Your task to perform on an android device: uninstall "LiveIn - Share Your Moment" Image 0: 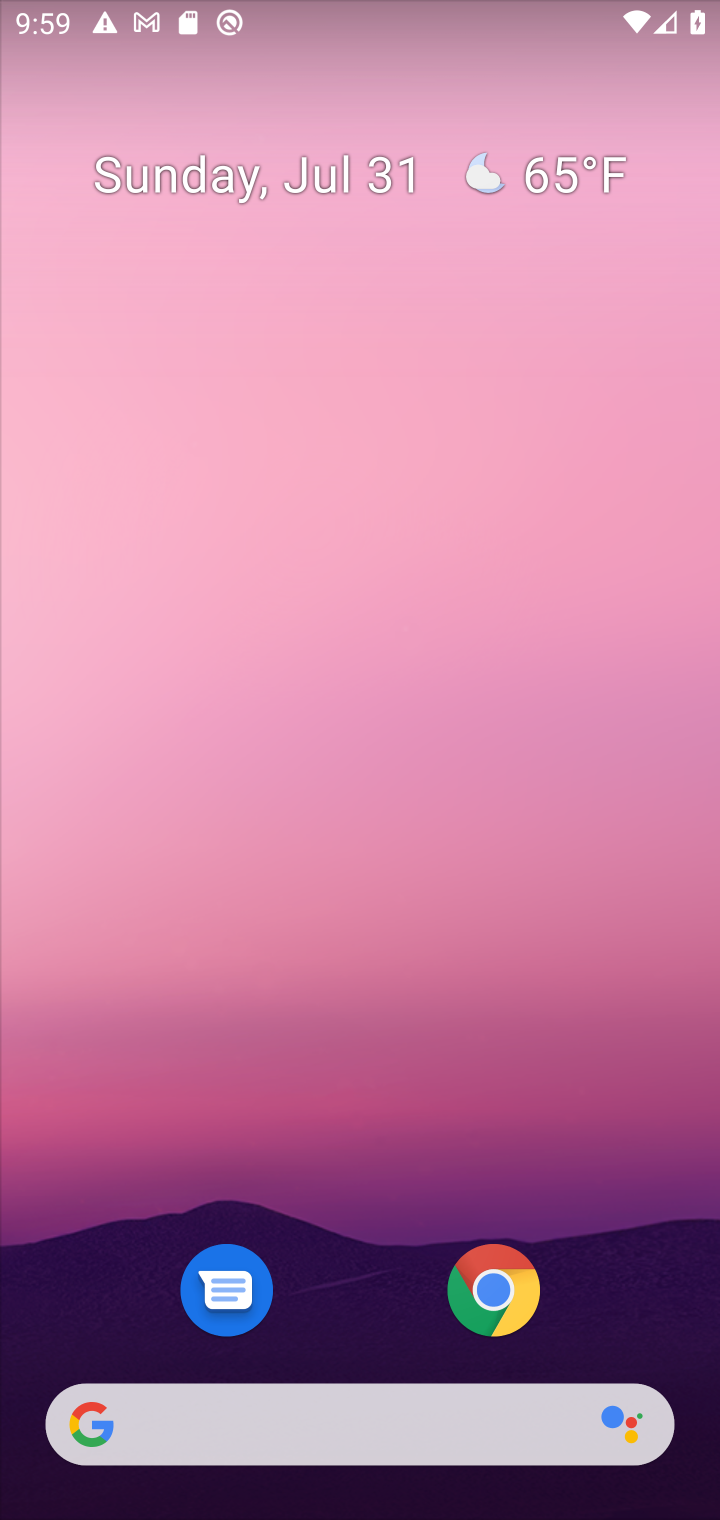
Step 0: press home button
Your task to perform on an android device: uninstall "LiveIn - Share Your Moment" Image 1: 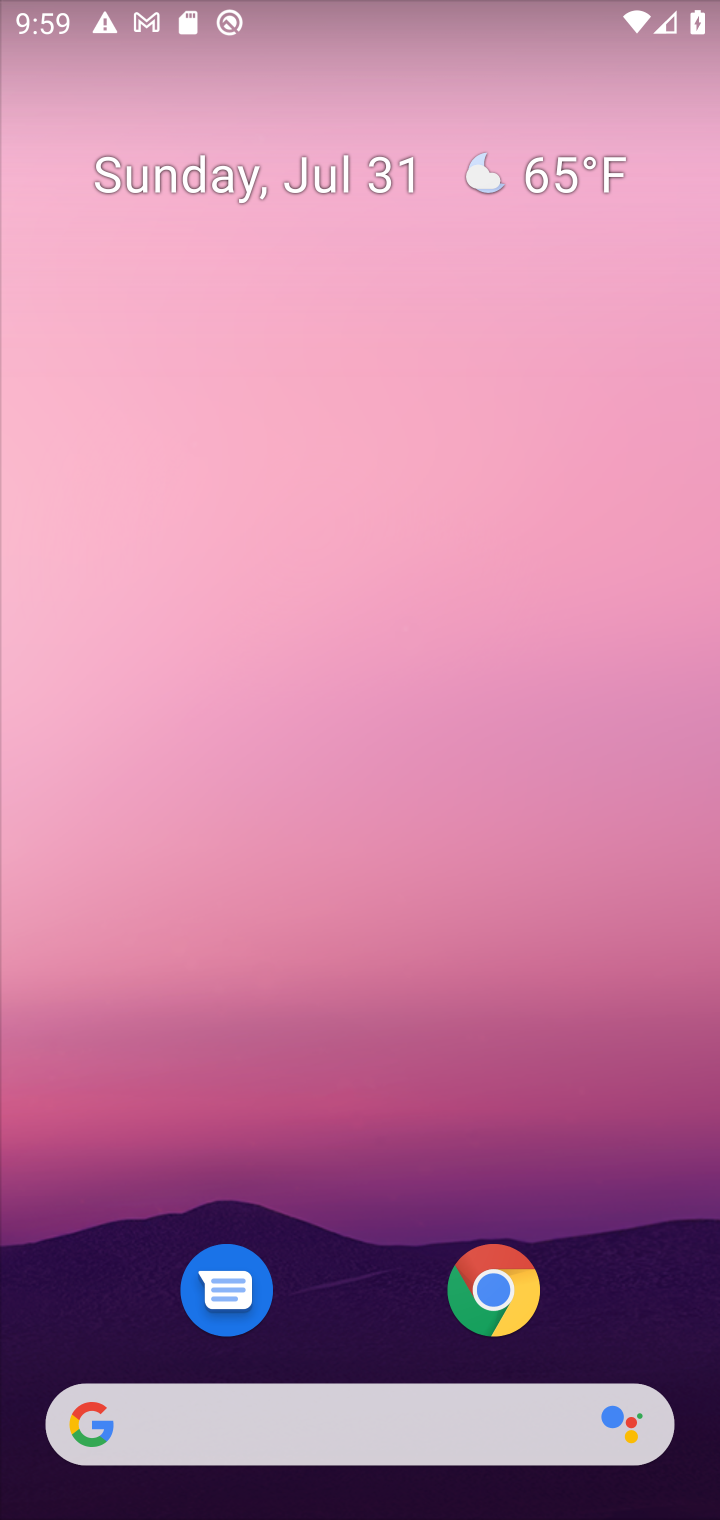
Step 1: drag from (609, 1003) to (605, 163)
Your task to perform on an android device: uninstall "LiveIn - Share Your Moment" Image 2: 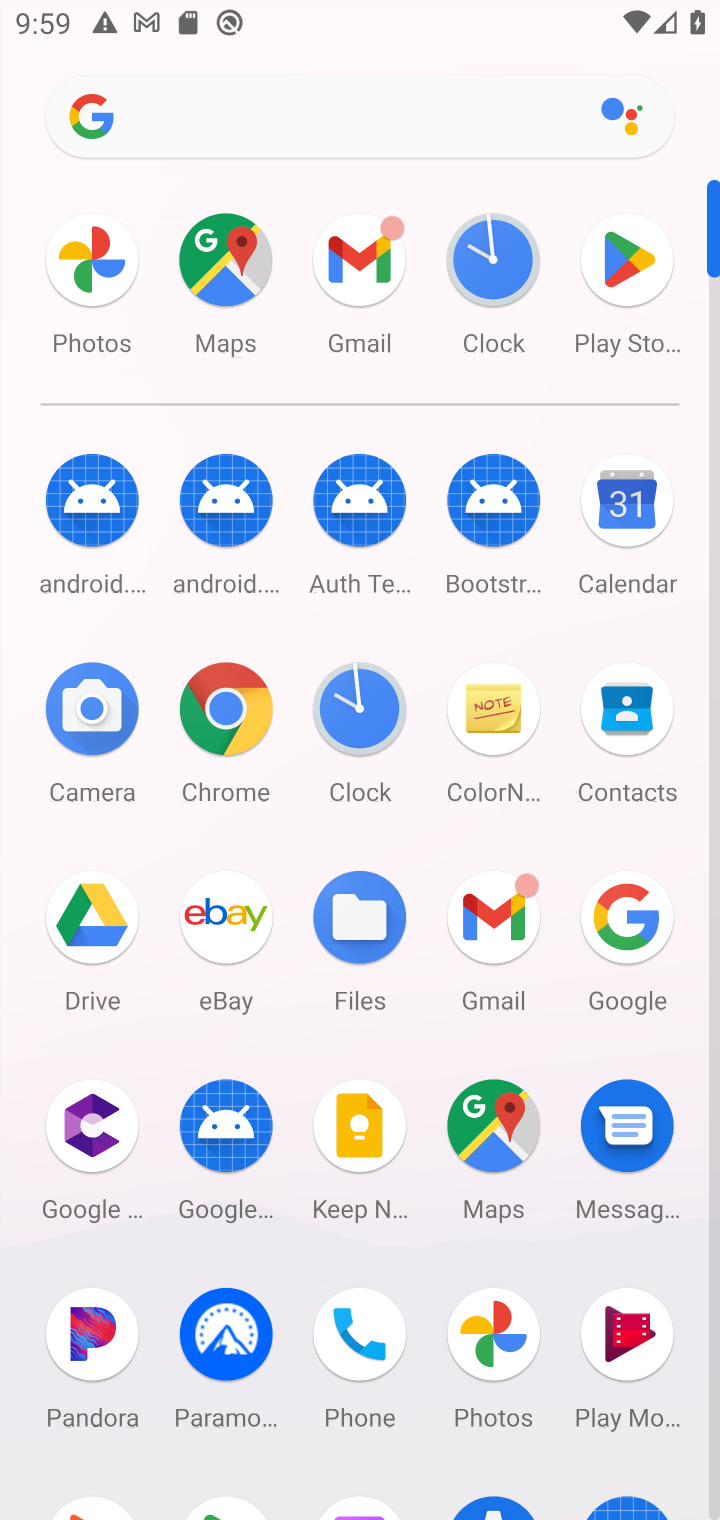
Step 2: click (634, 279)
Your task to perform on an android device: uninstall "LiveIn - Share Your Moment" Image 3: 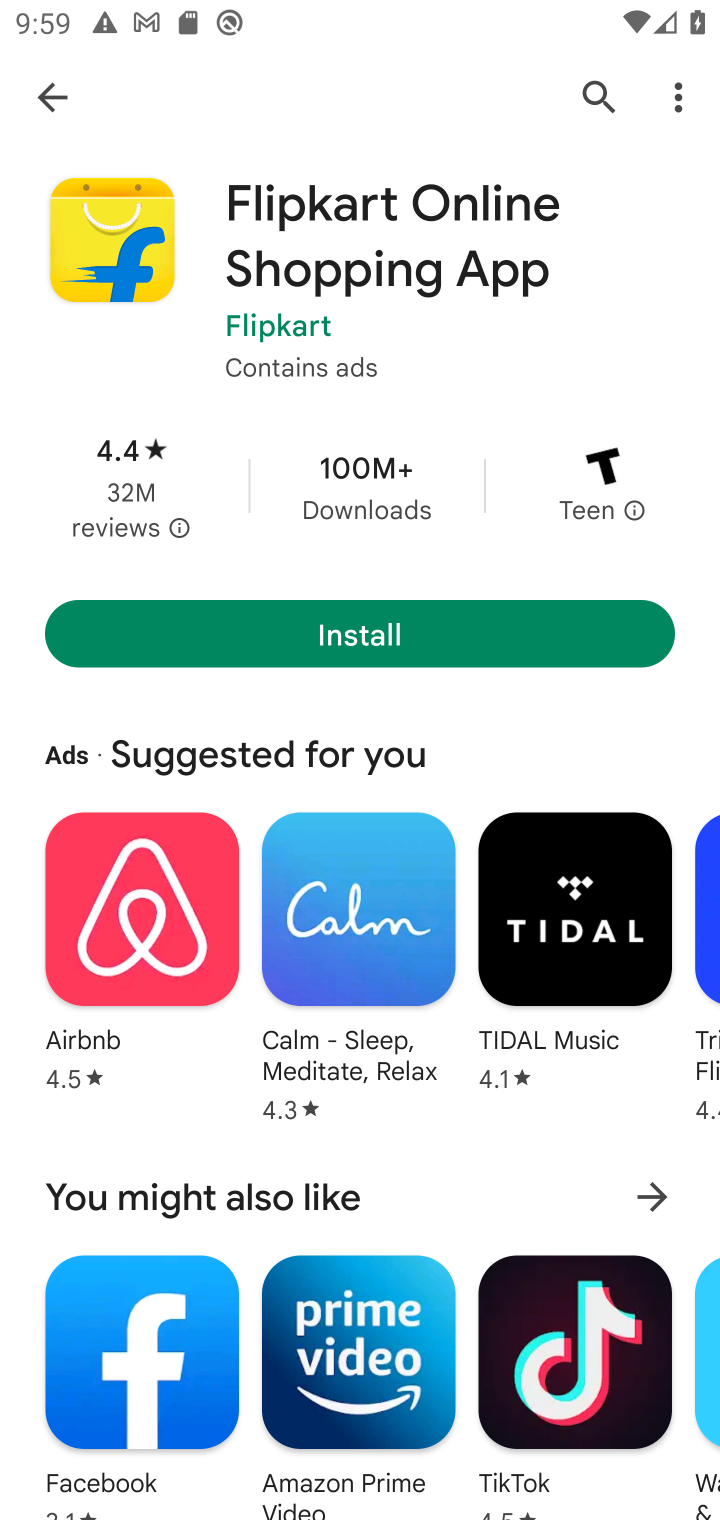
Step 3: press home button
Your task to perform on an android device: uninstall "LiveIn - Share Your Moment" Image 4: 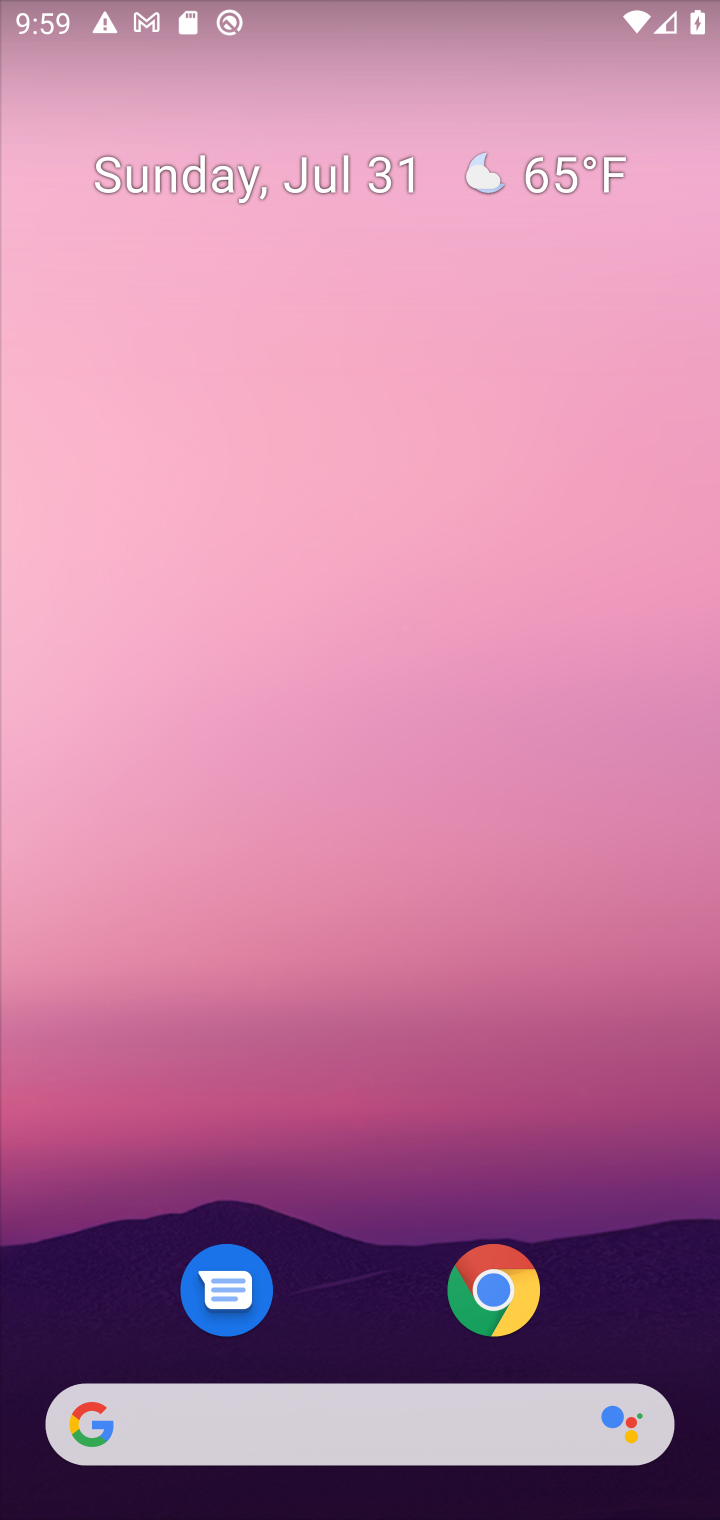
Step 4: drag from (621, 1201) to (466, 88)
Your task to perform on an android device: uninstall "LiveIn - Share Your Moment" Image 5: 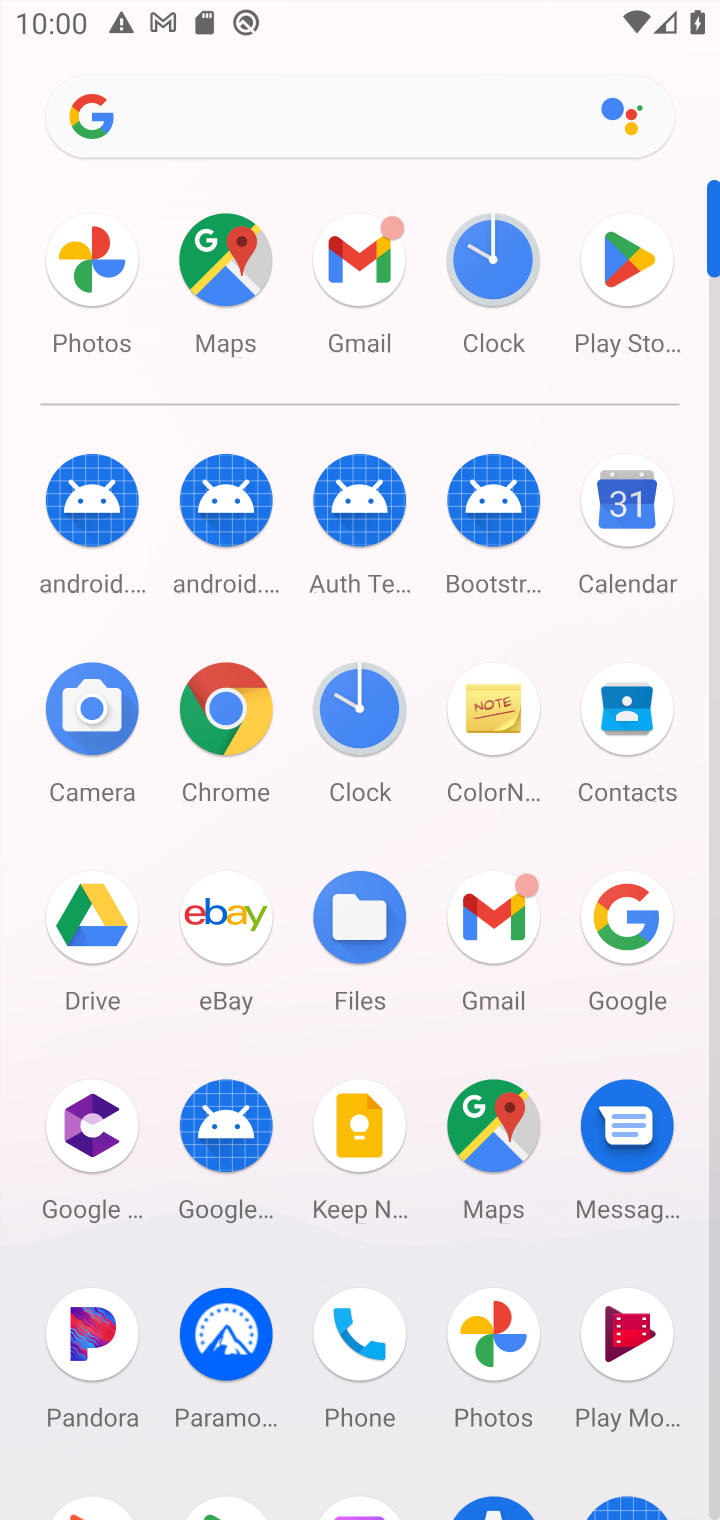
Step 5: click (598, 285)
Your task to perform on an android device: uninstall "LiveIn - Share Your Moment" Image 6: 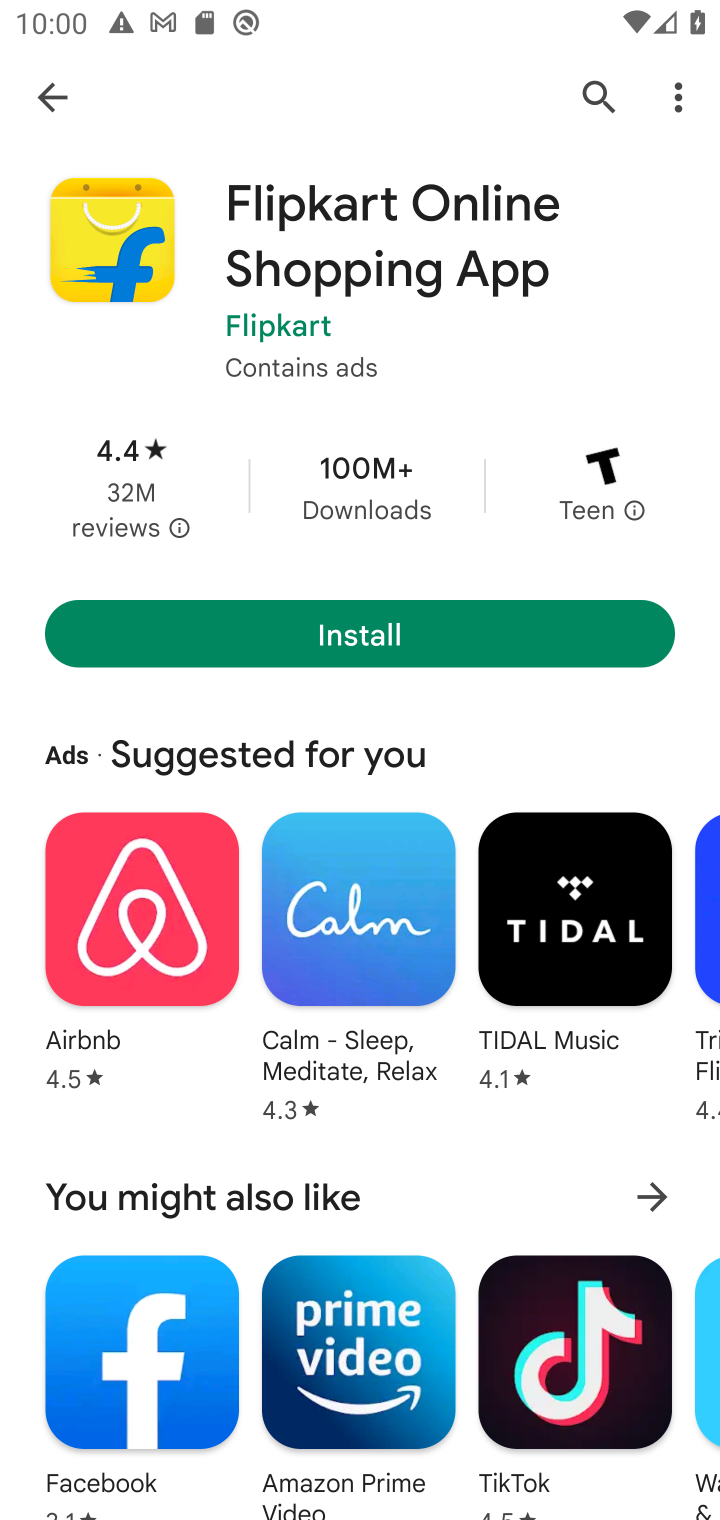
Step 6: click (61, 96)
Your task to perform on an android device: uninstall "LiveIn - Share Your Moment" Image 7: 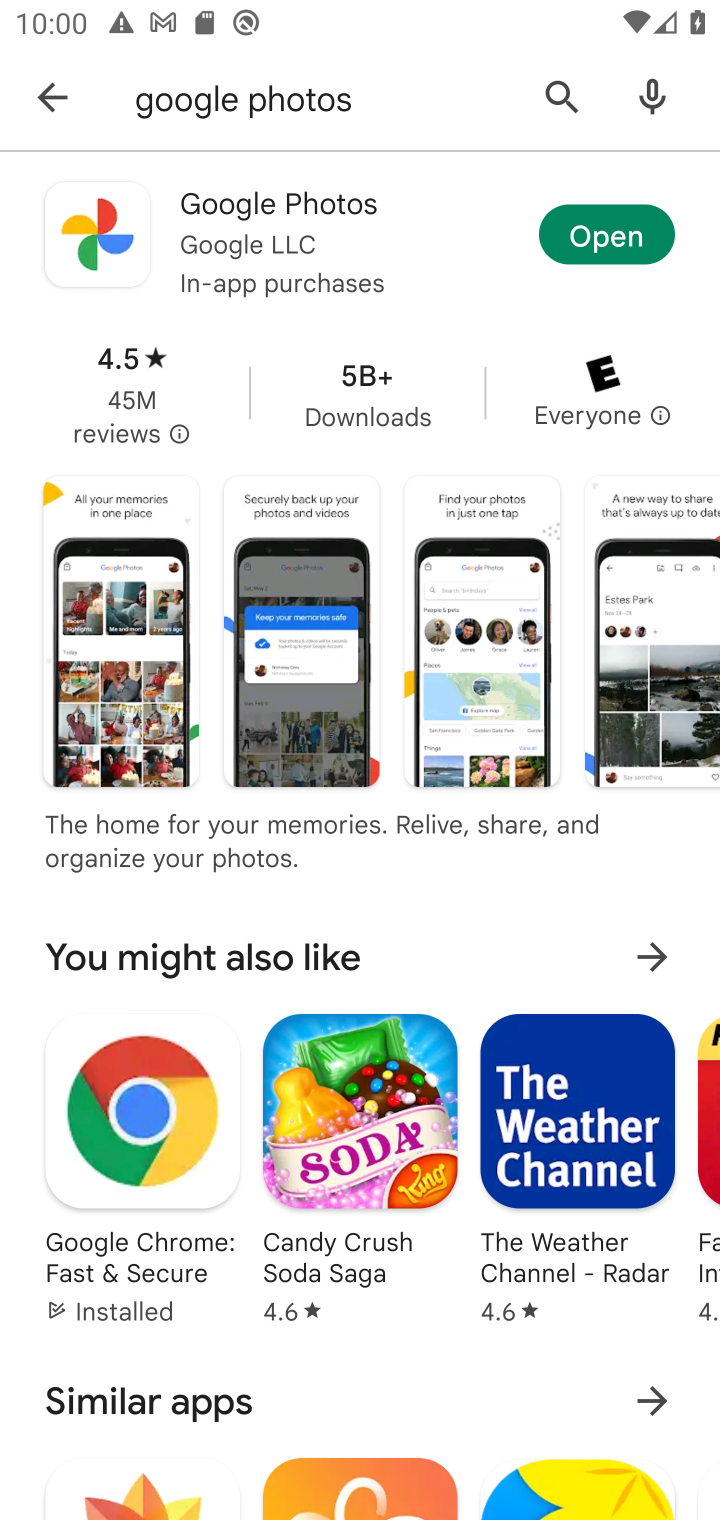
Step 7: click (559, 95)
Your task to perform on an android device: uninstall "LiveIn - Share Your Moment" Image 8: 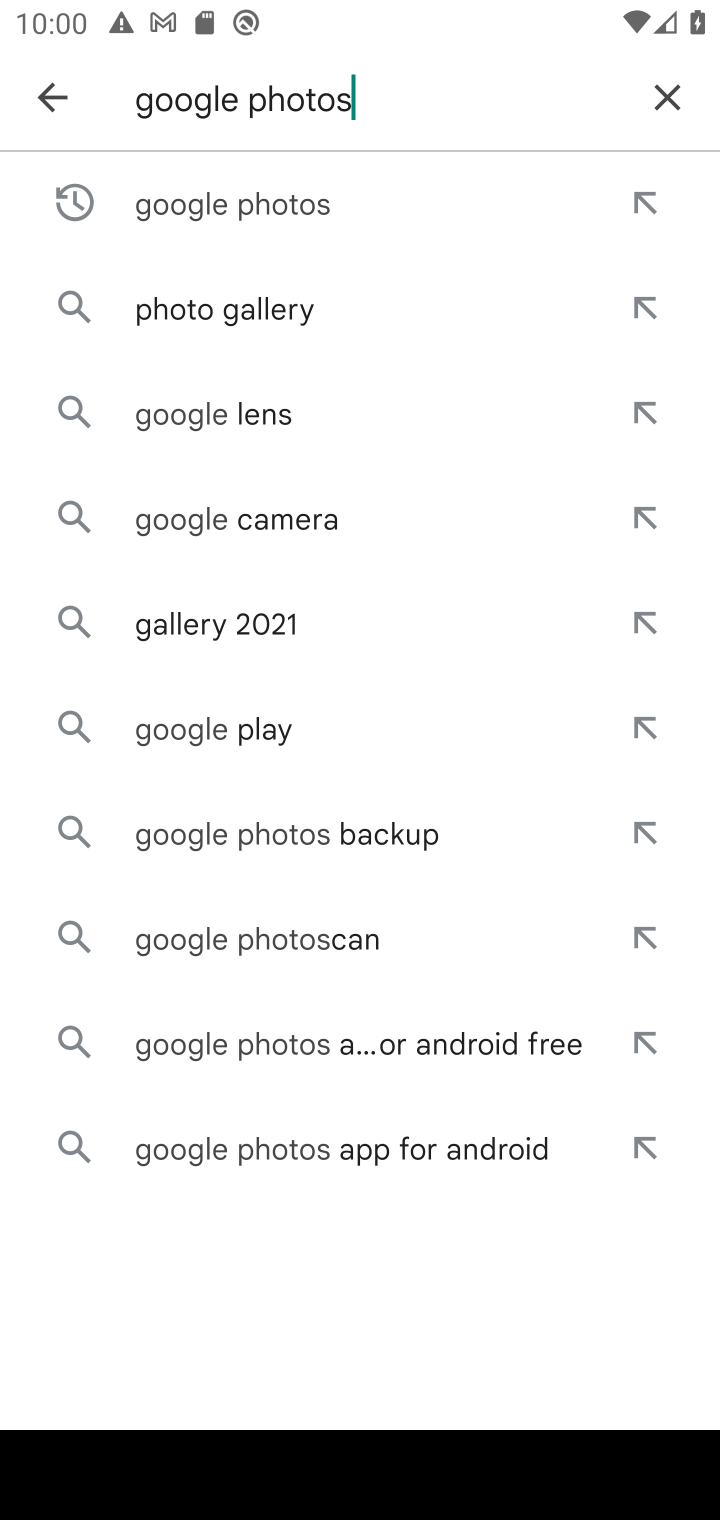
Step 8: click (670, 102)
Your task to perform on an android device: uninstall "LiveIn - Share Your Moment" Image 9: 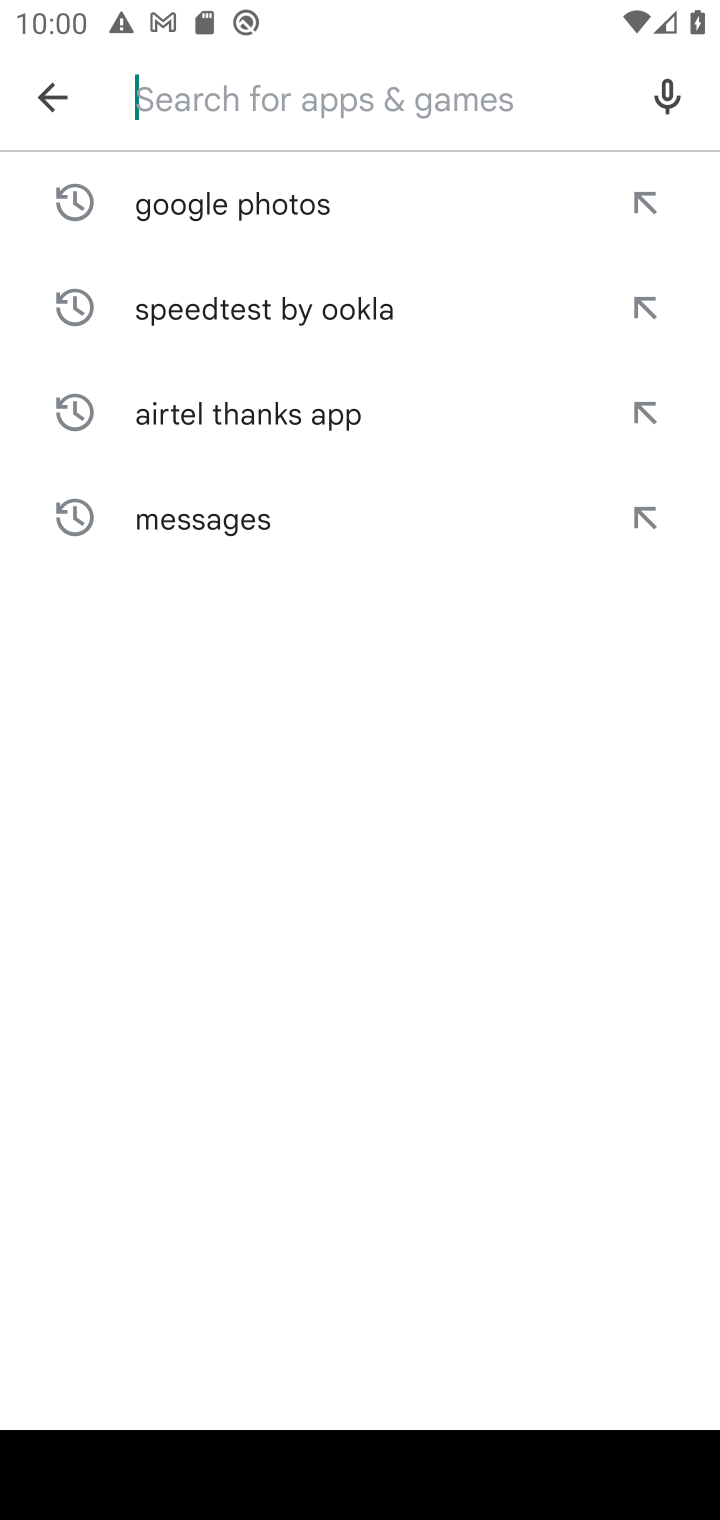
Step 9: type "LiveIn - Share Your Moment"
Your task to perform on an android device: uninstall "LiveIn - Share Your Moment" Image 10: 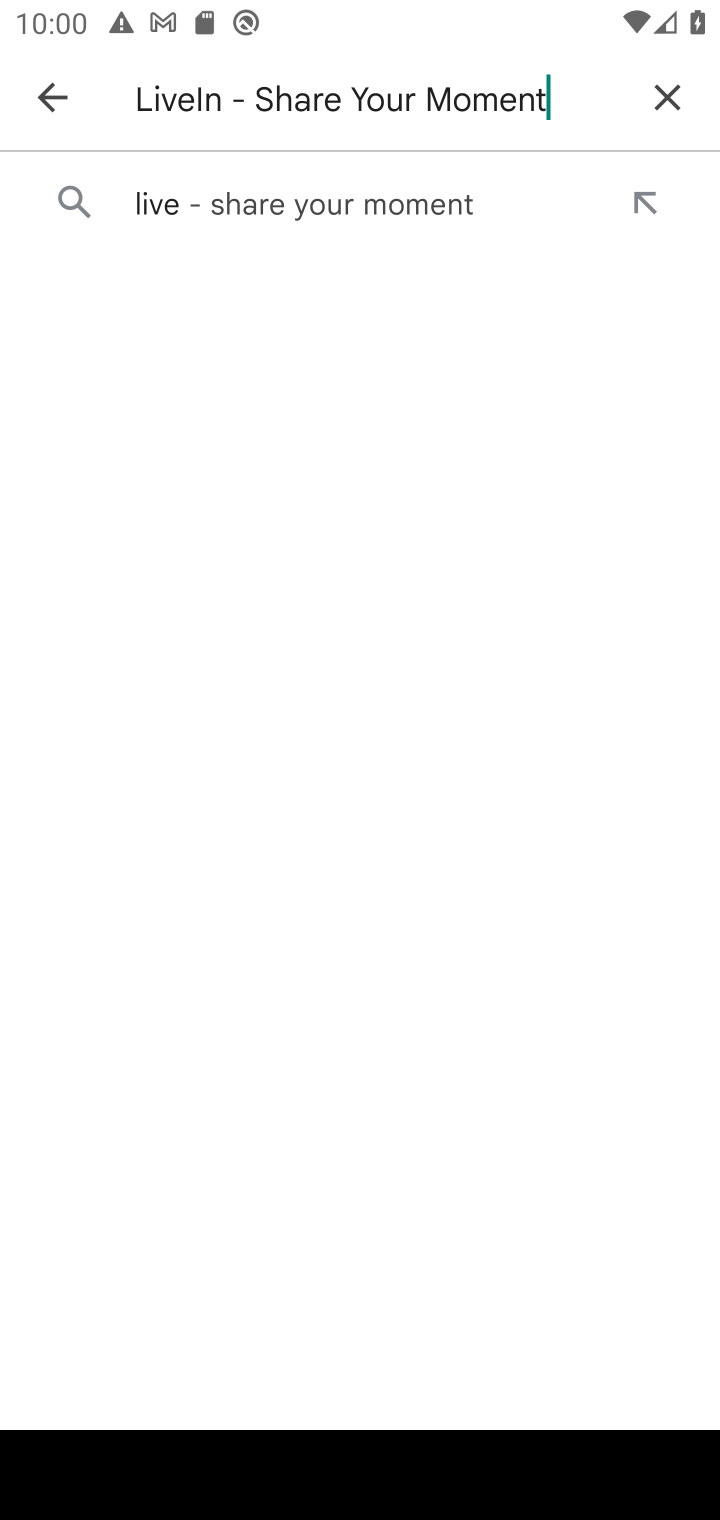
Step 10: click (351, 199)
Your task to perform on an android device: uninstall "LiveIn - Share Your Moment" Image 11: 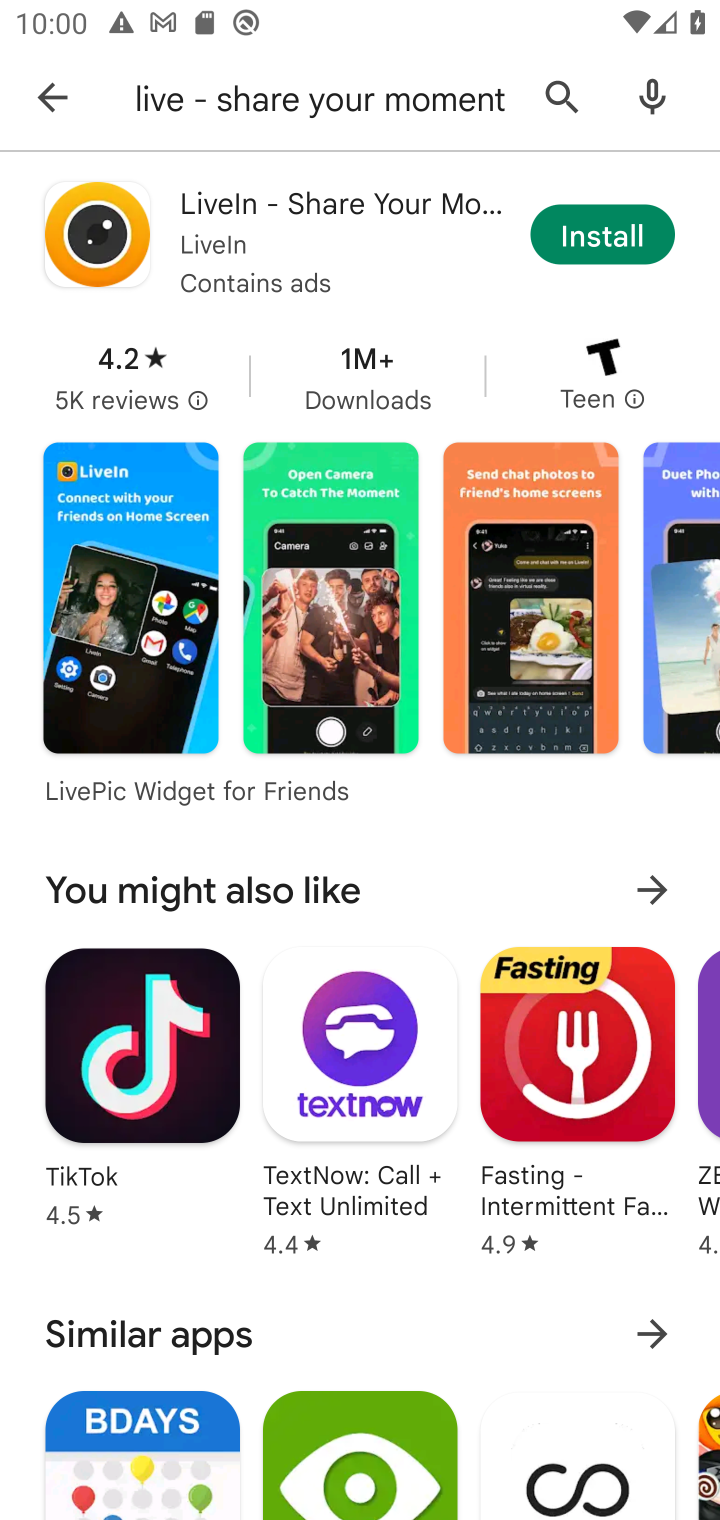
Step 11: task complete